Your task to perform on an android device: change the clock display to analog Image 0: 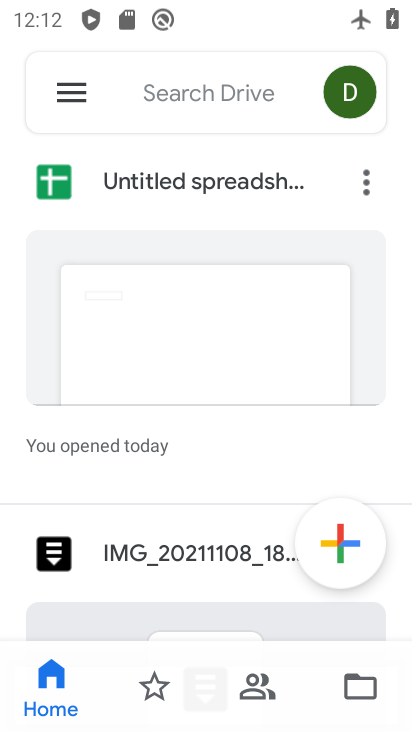
Step 0: press home button
Your task to perform on an android device: change the clock display to analog Image 1: 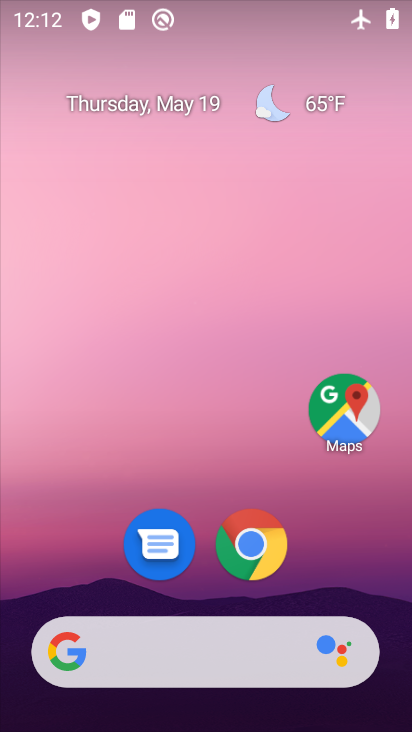
Step 1: drag from (345, 566) to (348, 136)
Your task to perform on an android device: change the clock display to analog Image 2: 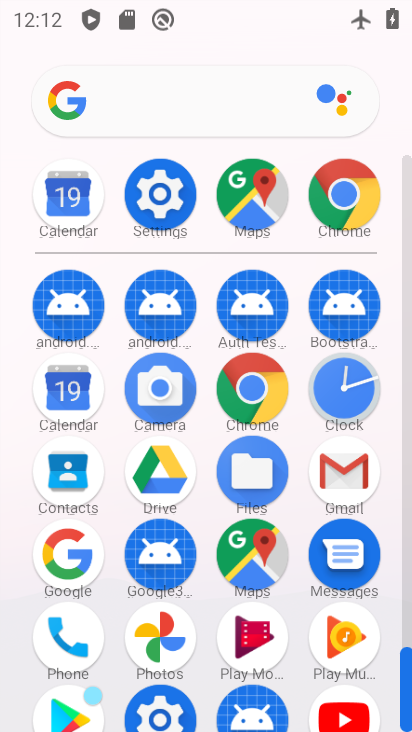
Step 2: click (360, 392)
Your task to perform on an android device: change the clock display to analog Image 3: 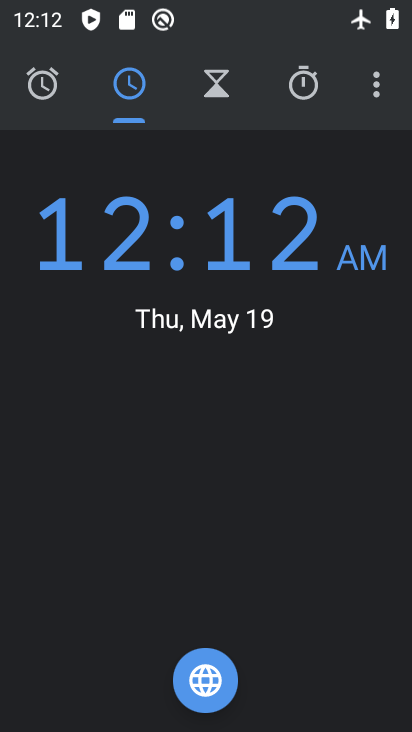
Step 3: click (375, 97)
Your task to perform on an android device: change the clock display to analog Image 4: 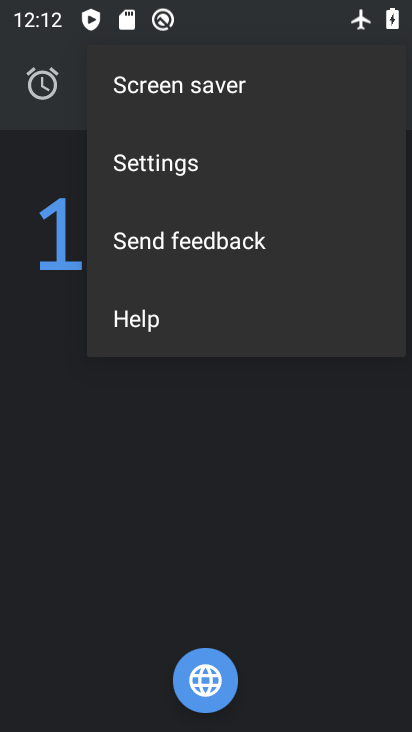
Step 4: click (251, 169)
Your task to perform on an android device: change the clock display to analog Image 5: 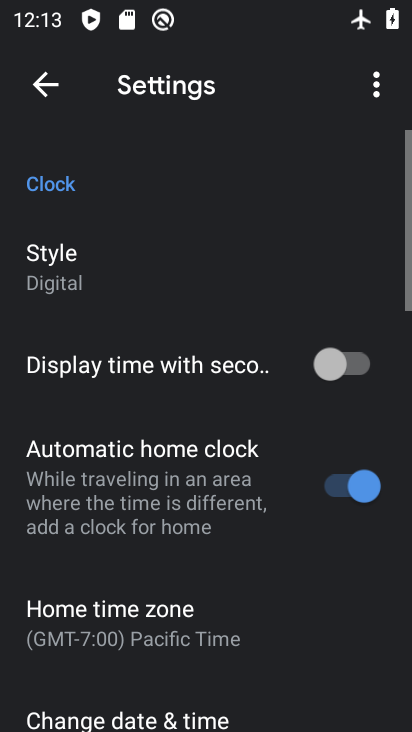
Step 5: drag from (278, 576) to (289, 364)
Your task to perform on an android device: change the clock display to analog Image 6: 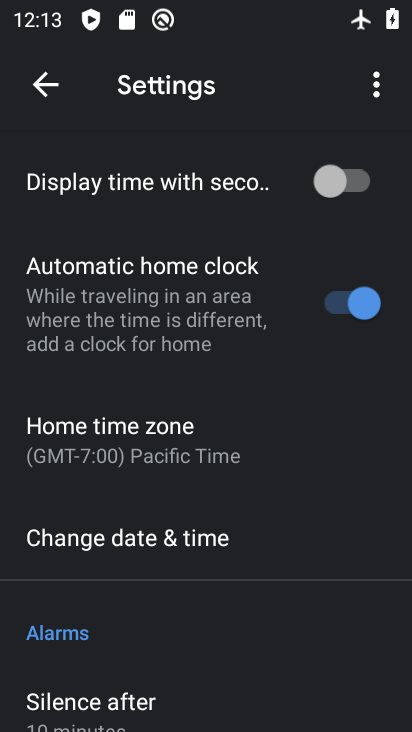
Step 6: drag from (281, 608) to (276, 389)
Your task to perform on an android device: change the clock display to analog Image 7: 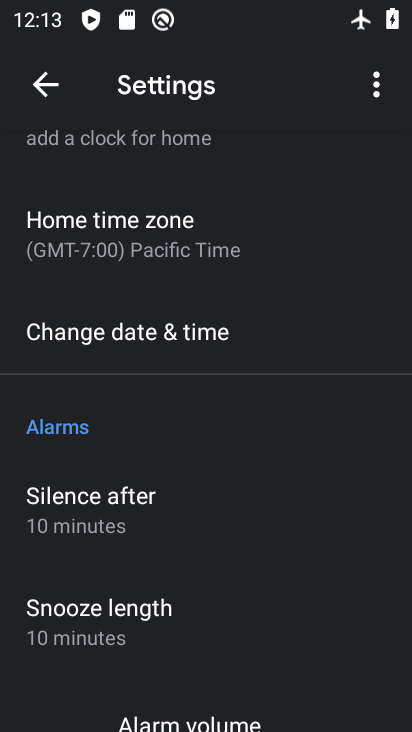
Step 7: drag from (276, 583) to (291, 418)
Your task to perform on an android device: change the clock display to analog Image 8: 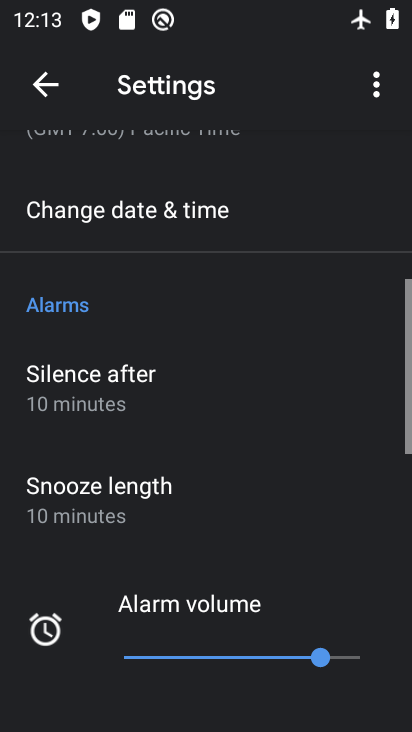
Step 8: drag from (284, 623) to (298, 393)
Your task to perform on an android device: change the clock display to analog Image 9: 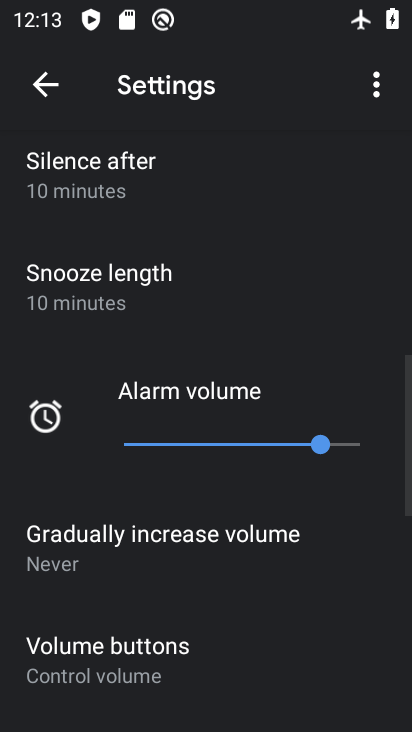
Step 9: drag from (288, 637) to (303, 427)
Your task to perform on an android device: change the clock display to analog Image 10: 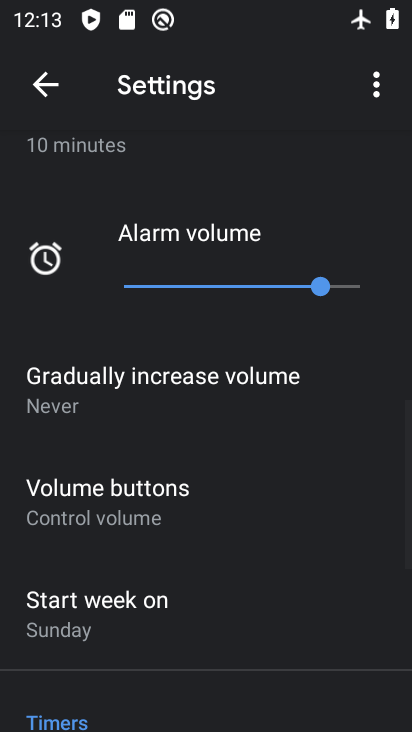
Step 10: drag from (290, 627) to (301, 413)
Your task to perform on an android device: change the clock display to analog Image 11: 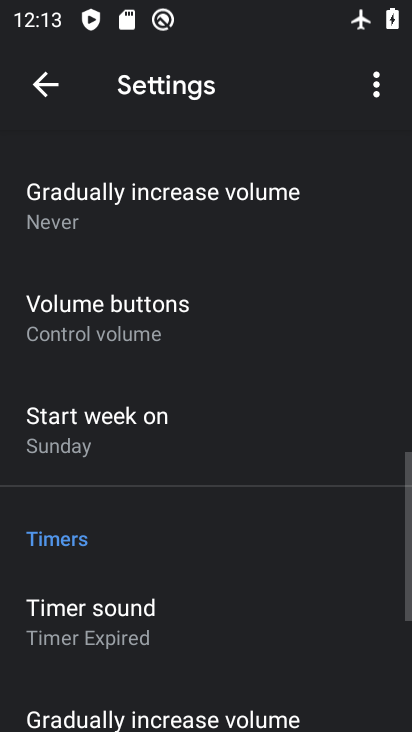
Step 11: drag from (292, 615) to (306, 390)
Your task to perform on an android device: change the clock display to analog Image 12: 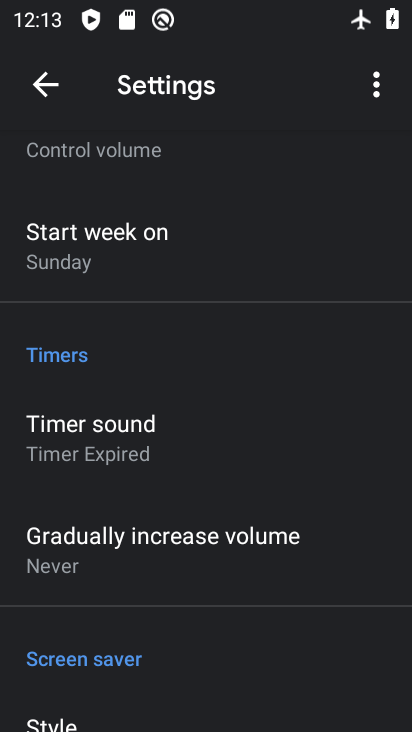
Step 12: drag from (335, 327) to (316, 554)
Your task to perform on an android device: change the clock display to analog Image 13: 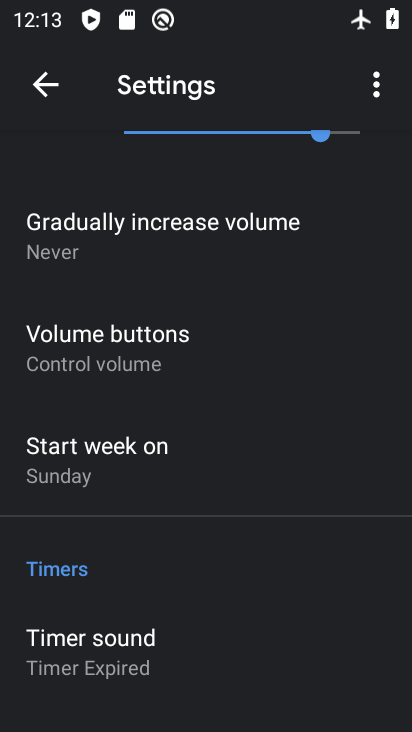
Step 13: drag from (344, 322) to (311, 464)
Your task to perform on an android device: change the clock display to analog Image 14: 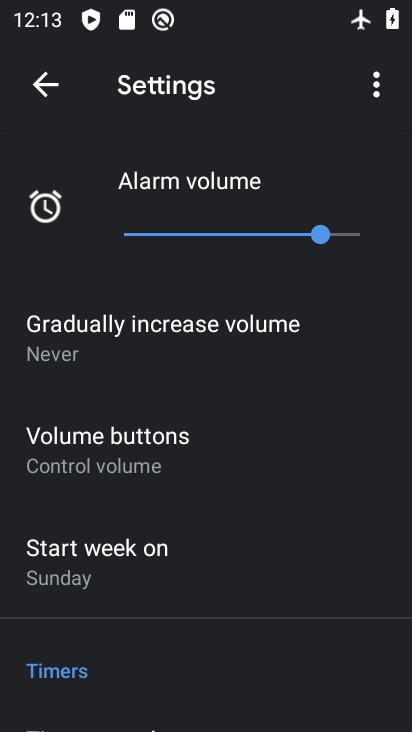
Step 14: drag from (312, 194) to (318, 442)
Your task to perform on an android device: change the clock display to analog Image 15: 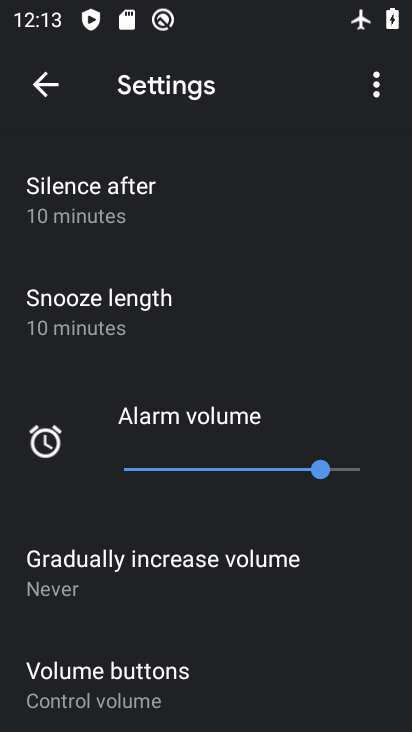
Step 15: drag from (284, 211) to (280, 396)
Your task to perform on an android device: change the clock display to analog Image 16: 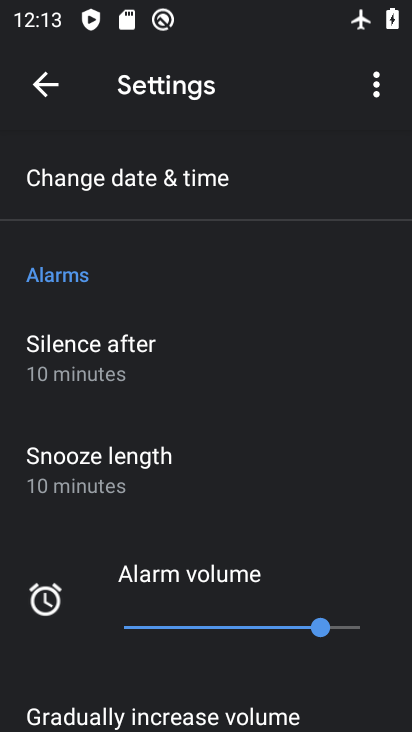
Step 16: drag from (267, 197) to (255, 401)
Your task to perform on an android device: change the clock display to analog Image 17: 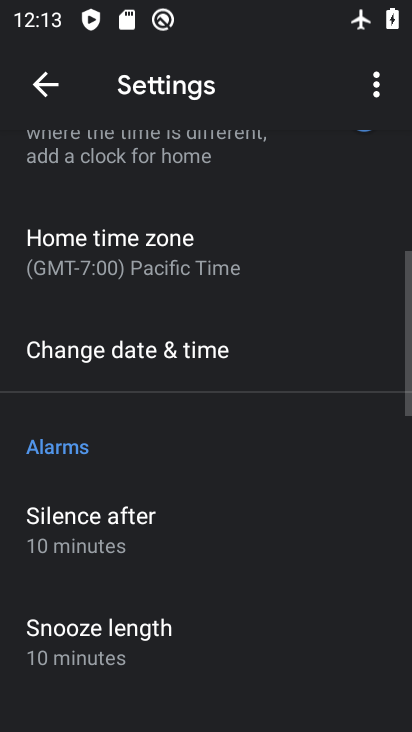
Step 17: drag from (266, 212) to (268, 391)
Your task to perform on an android device: change the clock display to analog Image 18: 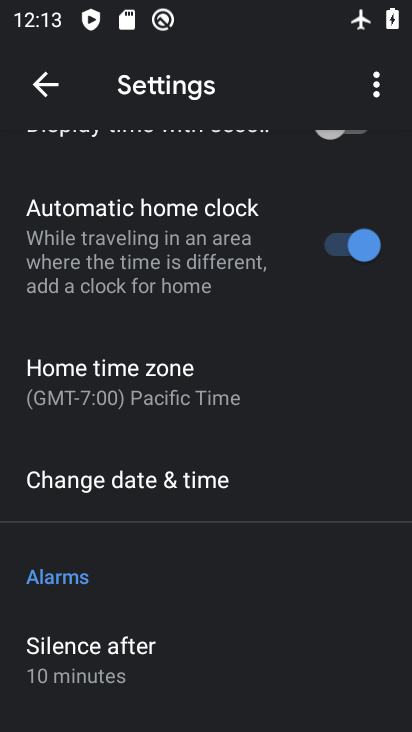
Step 18: drag from (294, 249) to (273, 512)
Your task to perform on an android device: change the clock display to analog Image 19: 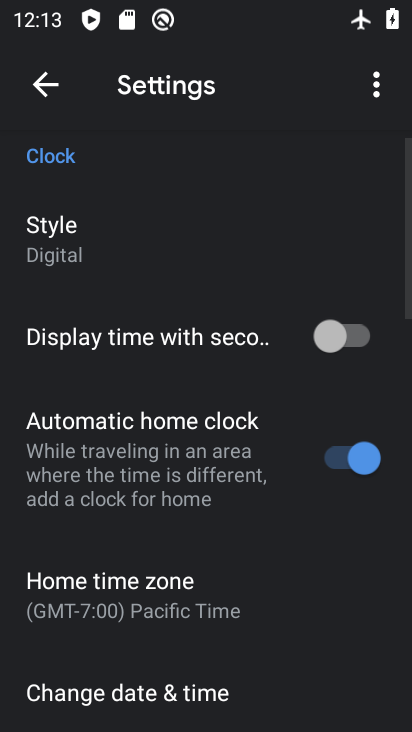
Step 19: drag from (277, 260) to (250, 446)
Your task to perform on an android device: change the clock display to analog Image 20: 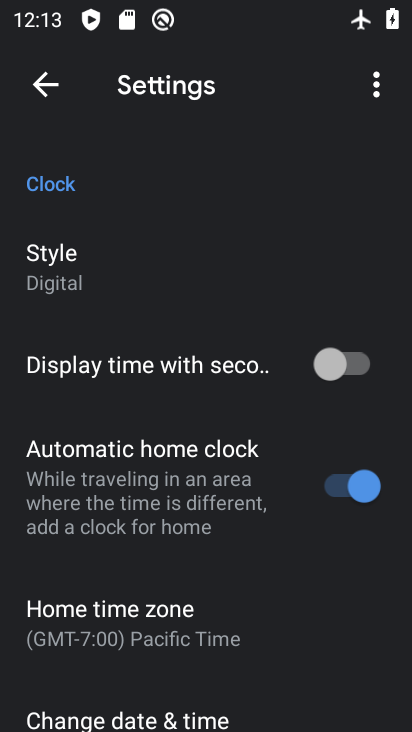
Step 20: click (62, 284)
Your task to perform on an android device: change the clock display to analog Image 21: 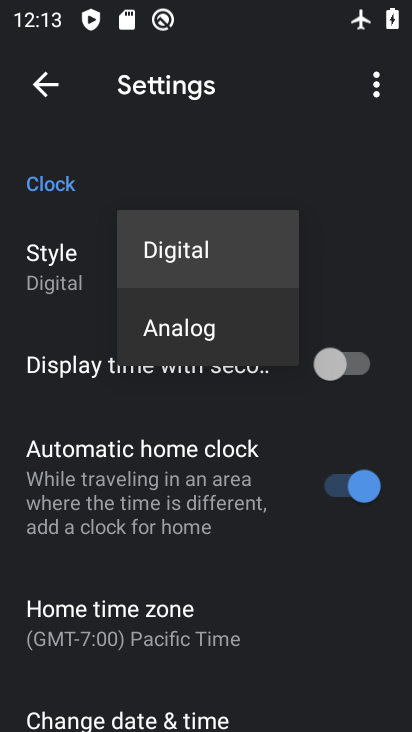
Step 21: click (195, 333)
Your task to perform on an android device: change the clock display to analog Image 22: 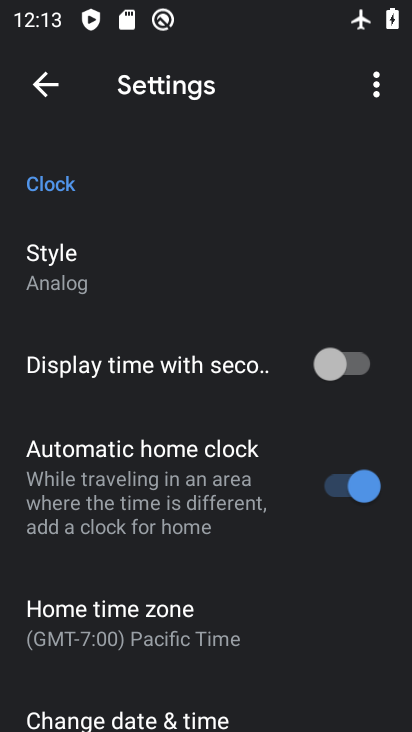
Step 22: task complete